Your task to perform on an android device: Go to CNN.com Image 0: 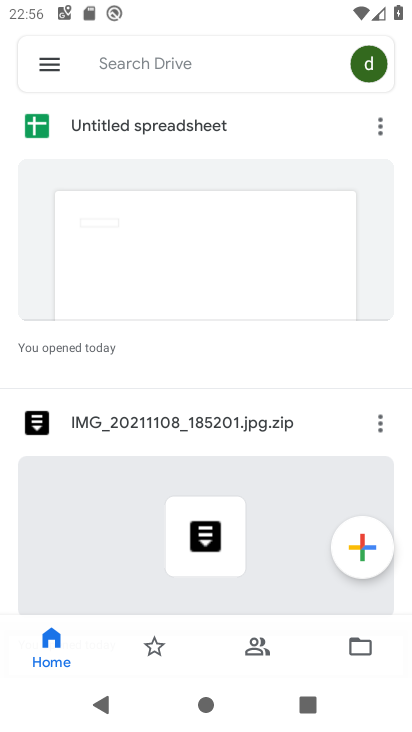
Step 0: press home button
Your task to perform on an android device: Go to CNN.com Image 1: 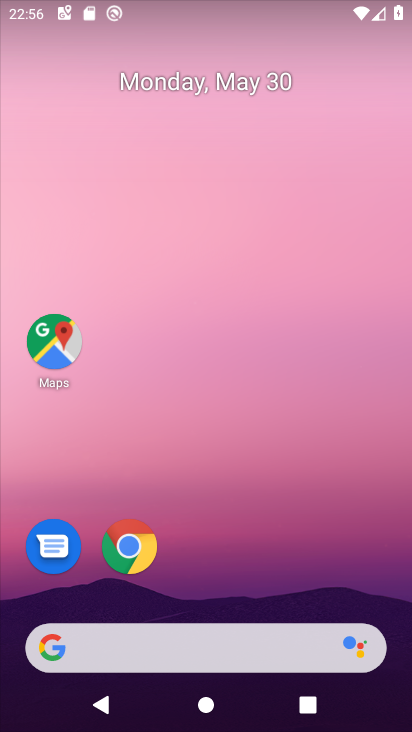
Step 1: click (134, 549)
Your task to perform on an android device: Go to CNN.com Image 2: 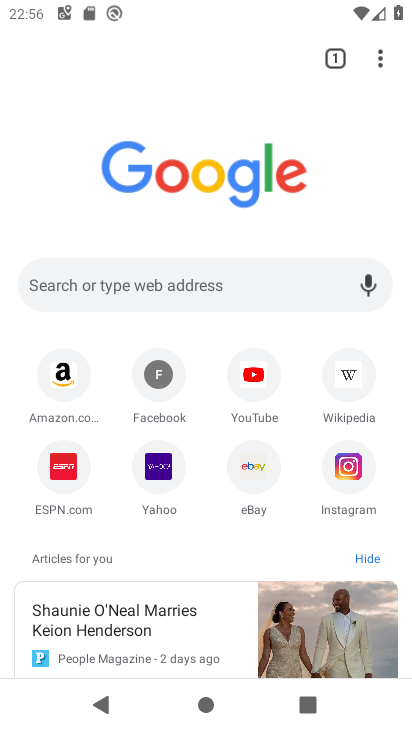
Step 2: click (140, 291)
Your task to perform on an android device: Go to CNN.com Image 3: 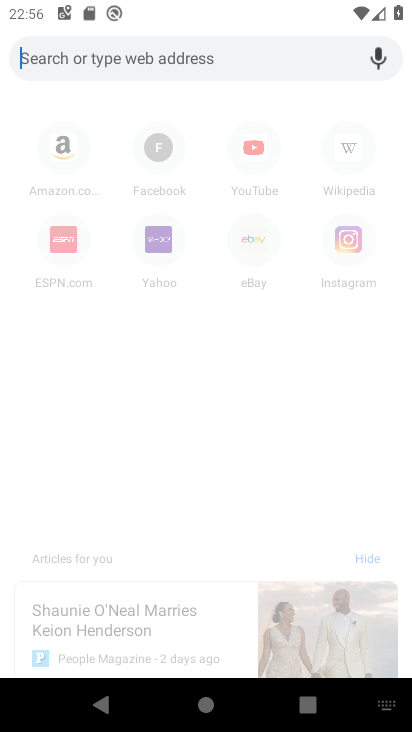
Step 3: type "CNN.com"
Your task to perform on an android device: Go to CNN.com Image 4: 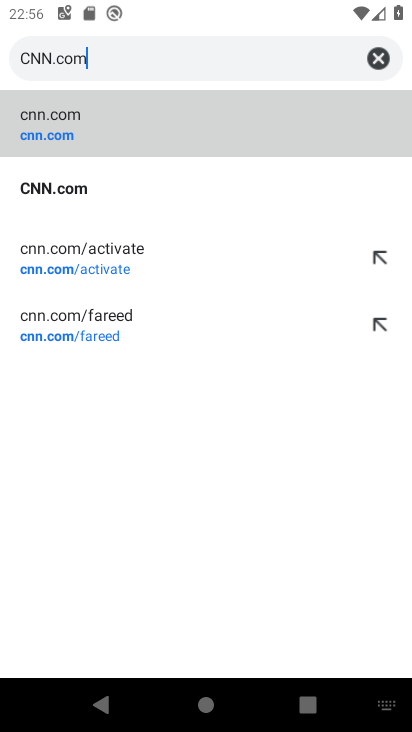
Step 4: click (64, 130)
Your task to perform on an android device: Go to CNN.com Image 5: 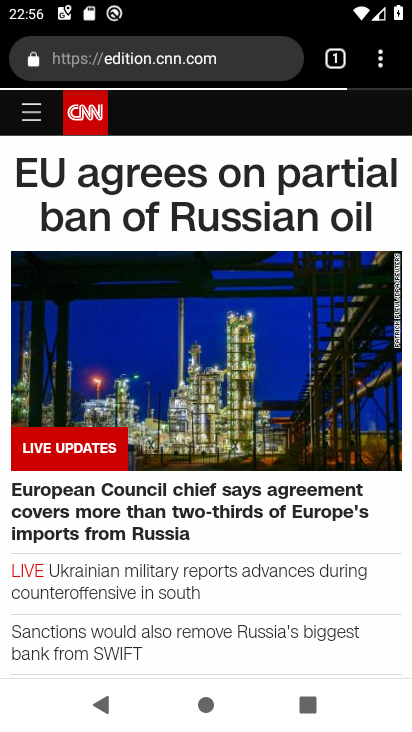
Step 5: task complete